Your task to perform on an android device: toggle sleep mode Image 0: 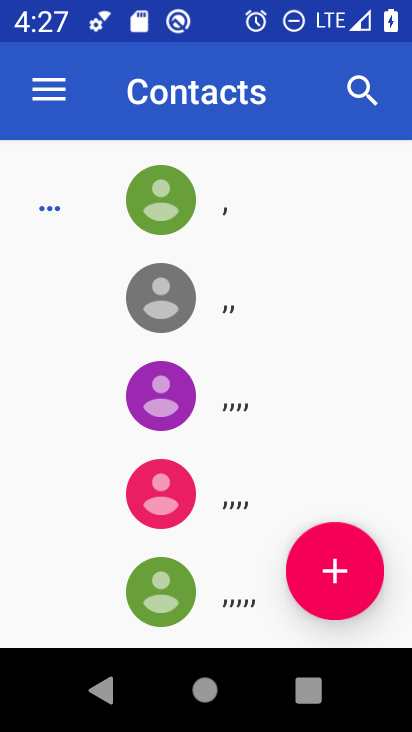
Step 0: press home button
Your task to perform on an android device: toggle sleep mode Image 1: 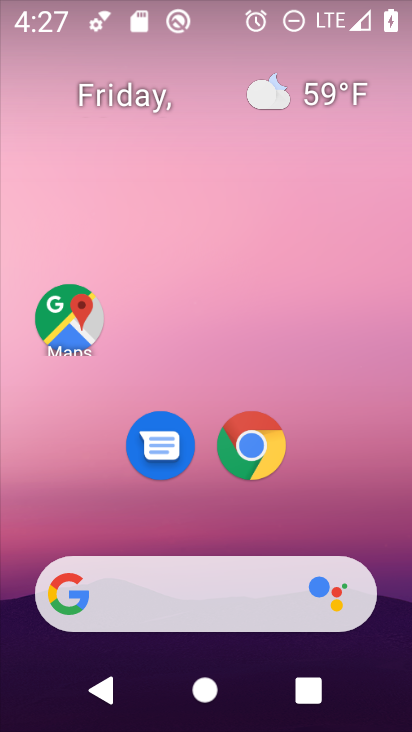
Step 1: drag from (397, 623) to (344, 110)
Your task to perform on an android device: toggle sleep mode Image 2: 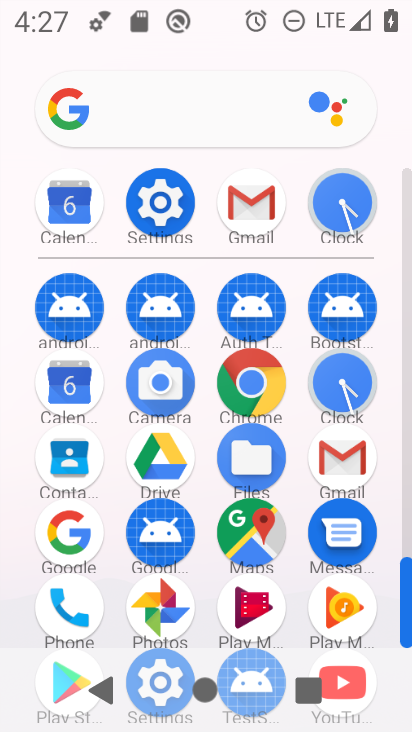
Step 2: drag from (407, 543) to (401, 450)
Your task to perform on an android device: toggle sleep mode Image 3: 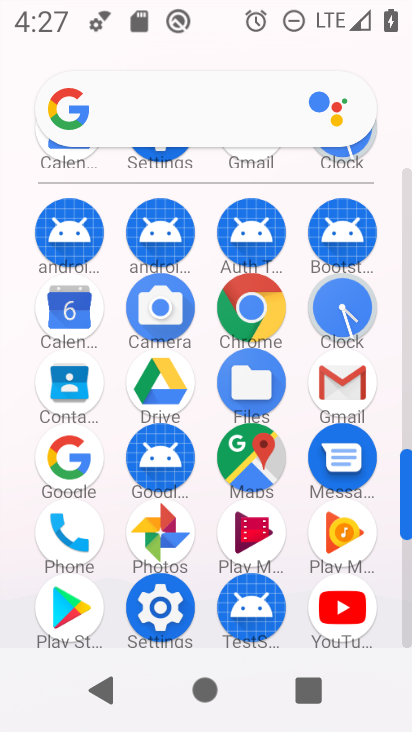
Step 3: click (162, 616)
Your task to perform on an android device: toggle sleep mode Image 4: 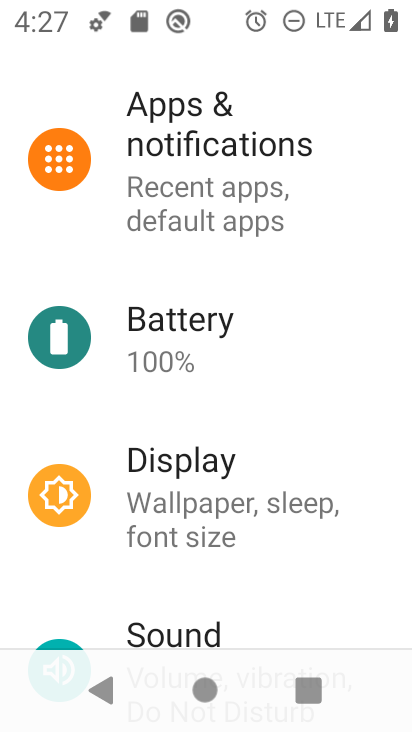
Step 4: click (188, 497)
Your task to perform on an android device: toggle sleep mode Image 5: 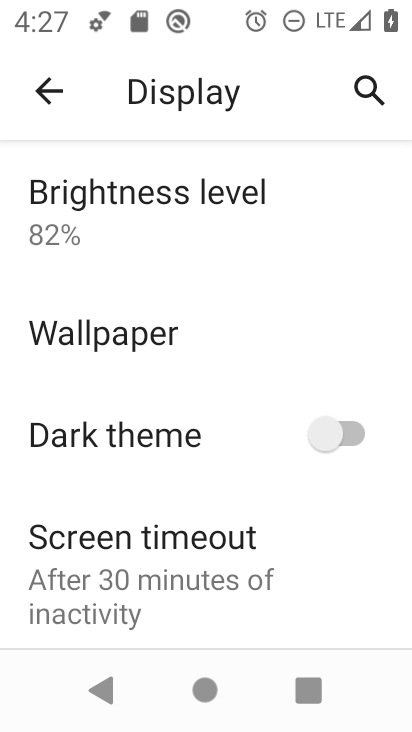
Step 5: drag from (220, 576) to (228, 273)
Your task to perform on an android device: toggle sleep mode Image 6: 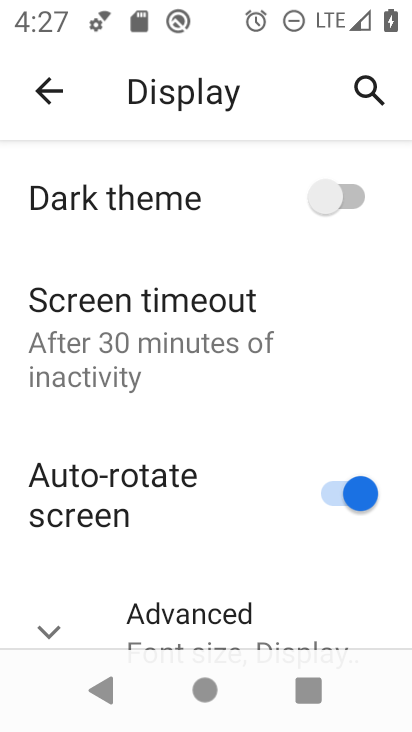
Step 6: drag from (60, 613) to (146, 337)
Your task to perform on an android device: toggle sleep mode Image 7: 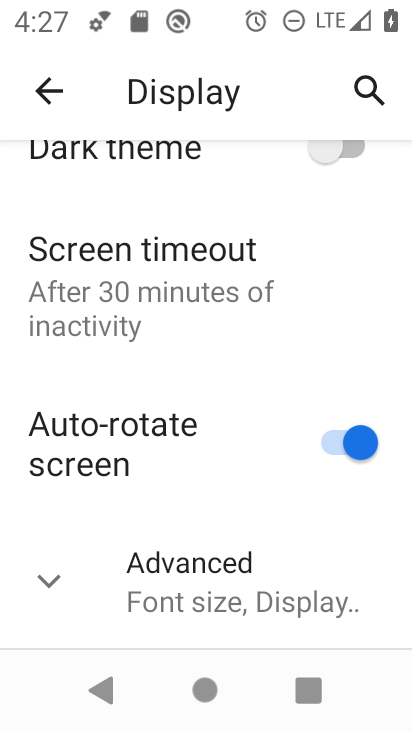
Step 7: click (50, 584)
Your task to perform on an android device: toggle sleep mode Image 8: 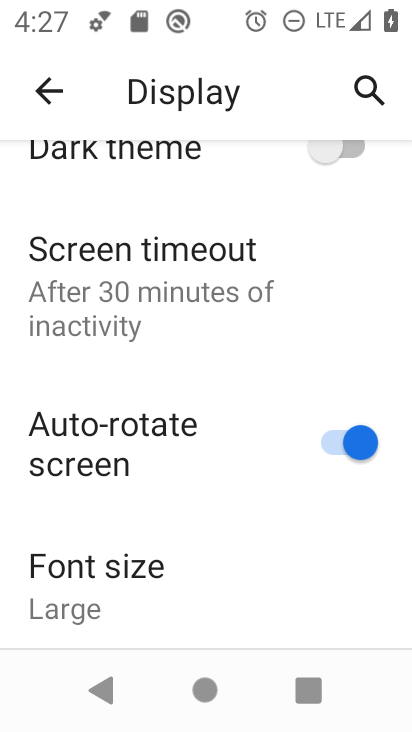
Step 8: task complete